Your task to perform on an android device: turn off smart reply in the gmail app Image 0: 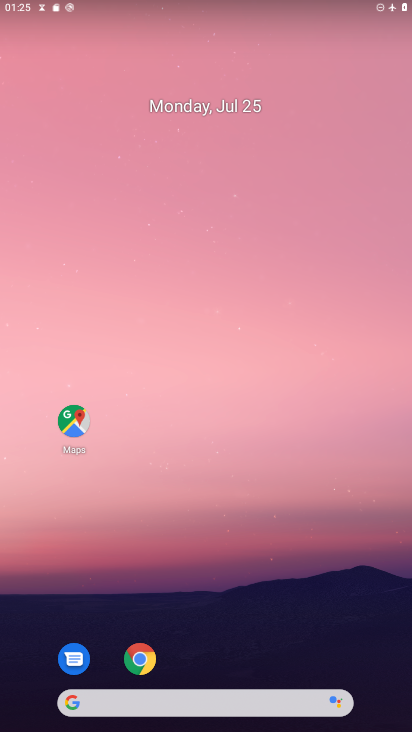
Step 0: drag from (283, 664) to (241, 351)
Your task to perform on an android device: turn off smart reply in the gmail app Image 1: 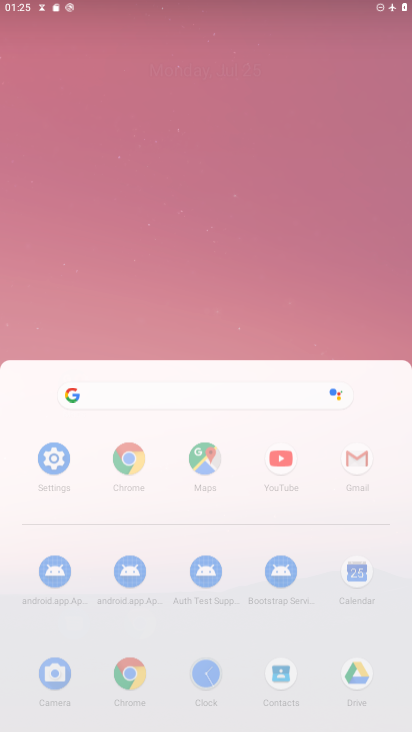
Step 1: drag from (218, 648) to (243, 219)
Your task to perform on an android device: turn off smart reply in the gmail app Image 2: 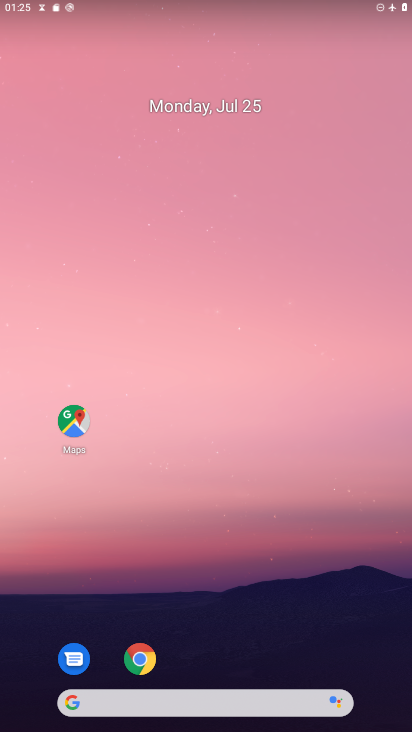
Step 2: drag from (233, 659) to (238, 194)
Your task to perform on an android device: turn off smart reply in the gmail app Image 3: 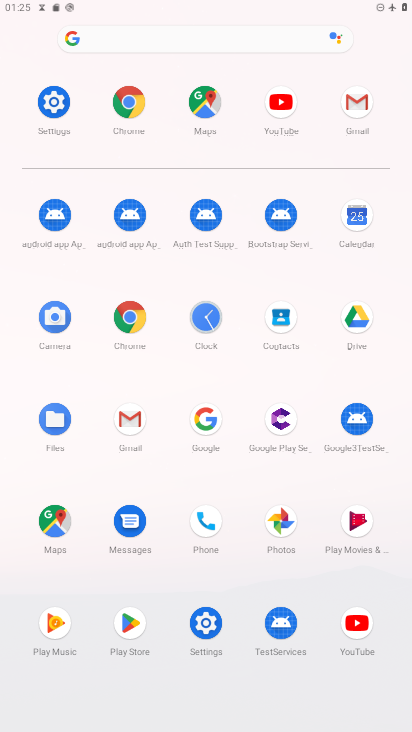
Step 3: click (132, 407)
Your task to perform on an android device: turn off smart reply in the gmail app Image 4: 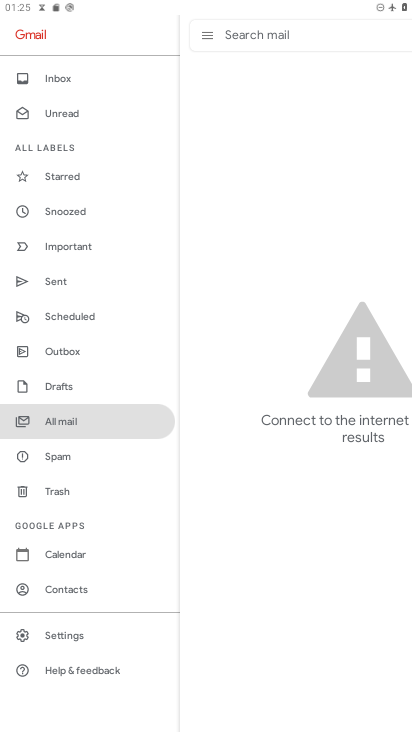
Step 4: click (86, 640)
Your task to perform on an android device: turn off smart reply in the gmail app Image 5: 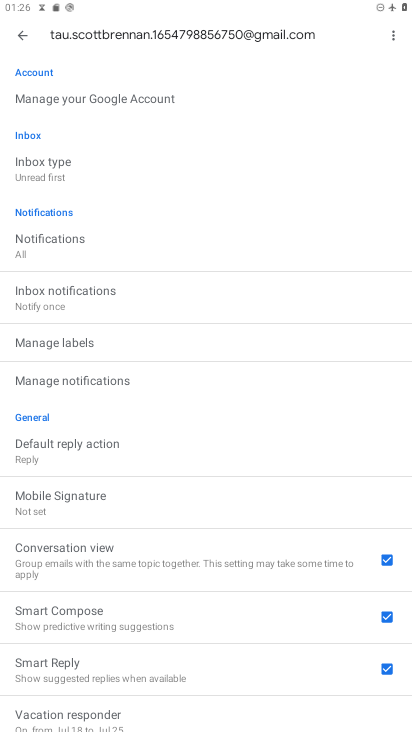
Step 5: click (381, 671)
Your task to perform on an android device: turn off smart reply in the gmail app Image 6: 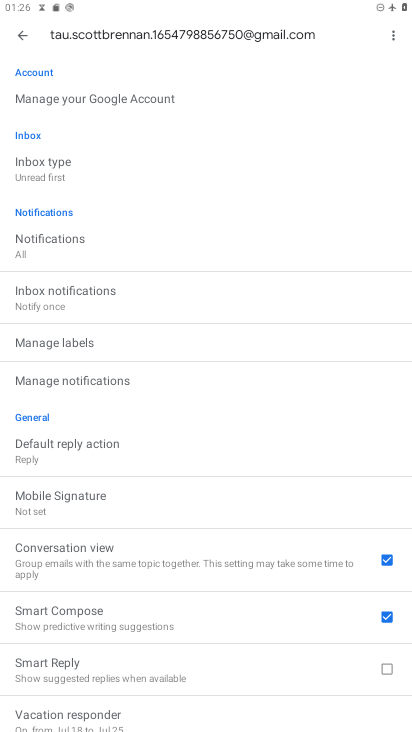
Step 6: task complete